Your task to perform on an android device: Look up the best rated coffee maker on Lowe's. Image 0: 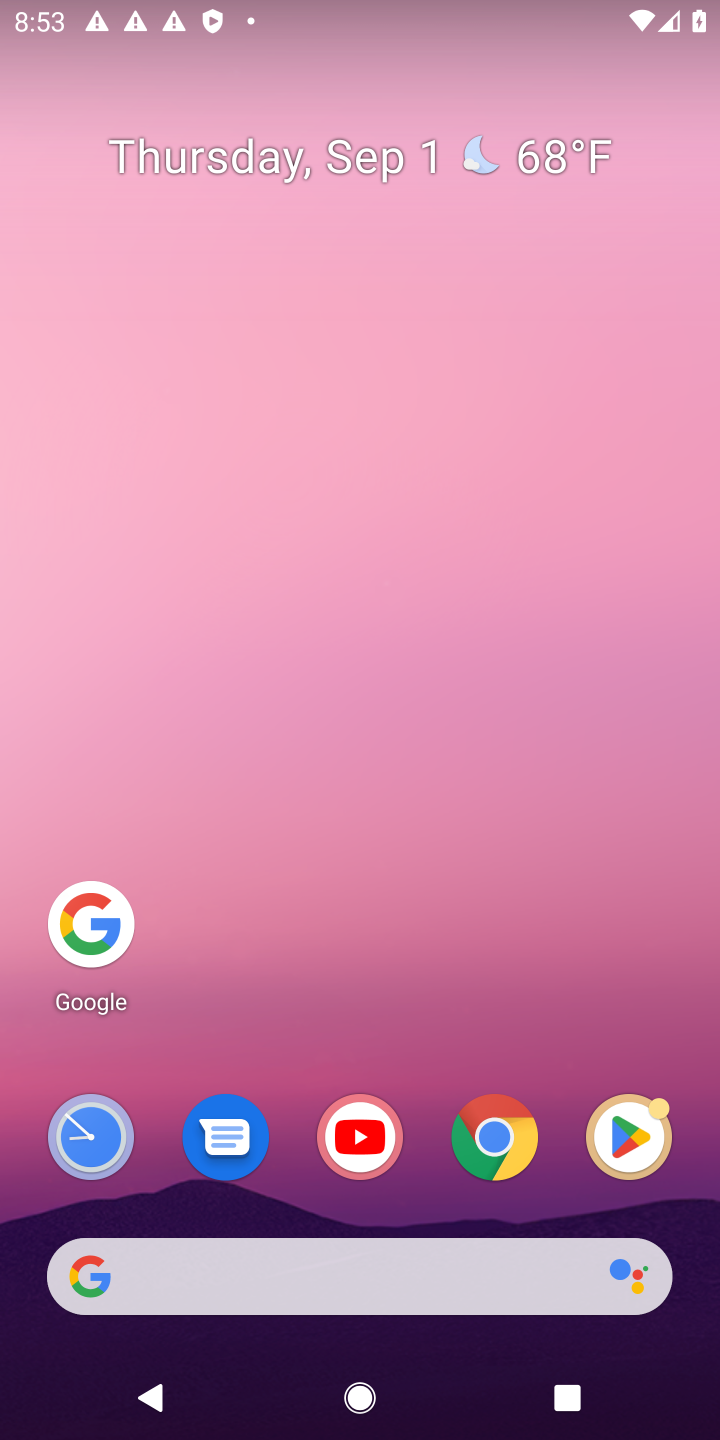
Step 0: click (107, 919)
Your task to perform on an android device: Look up the best rated coffee maker on Lowe's. Image 1: 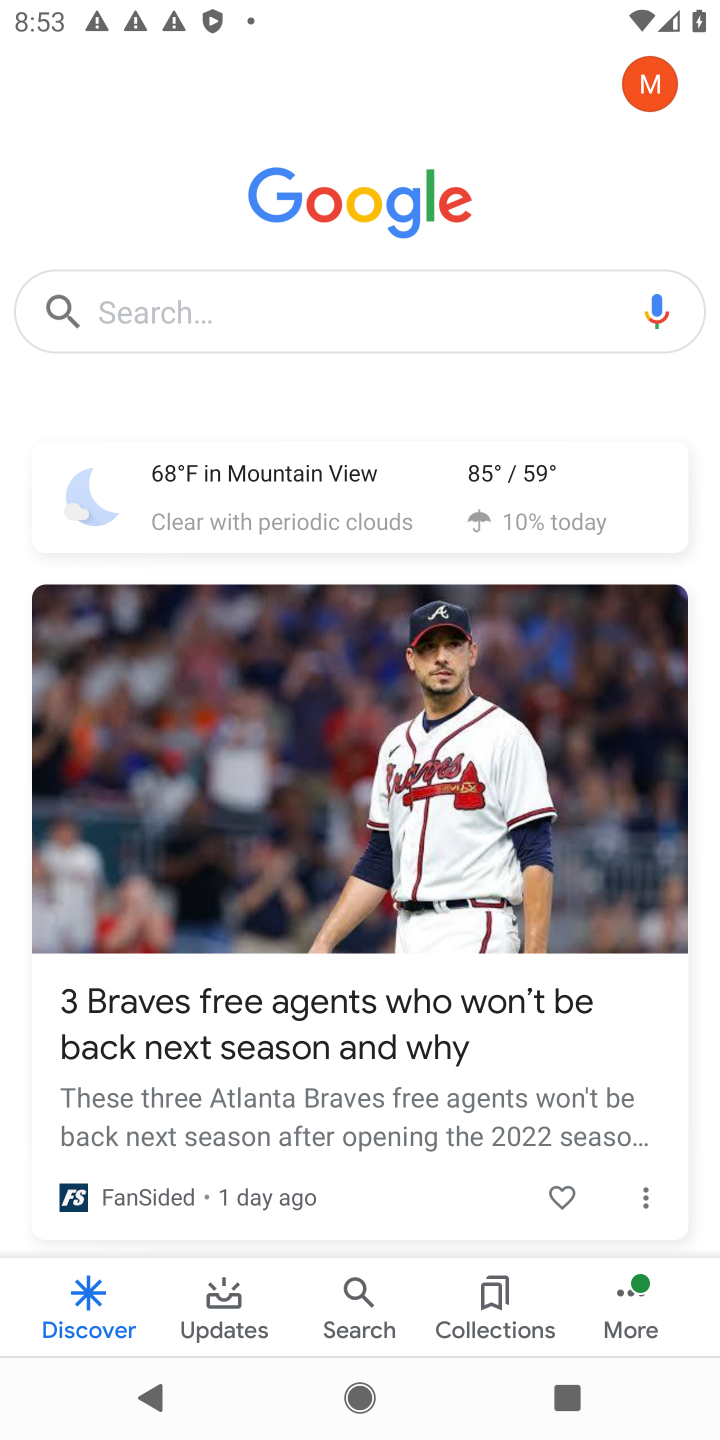
Step 1: click (321, 291)
Your task to perform on an android device: Look up the best rated coffee maker on Lowe's. Image 2: 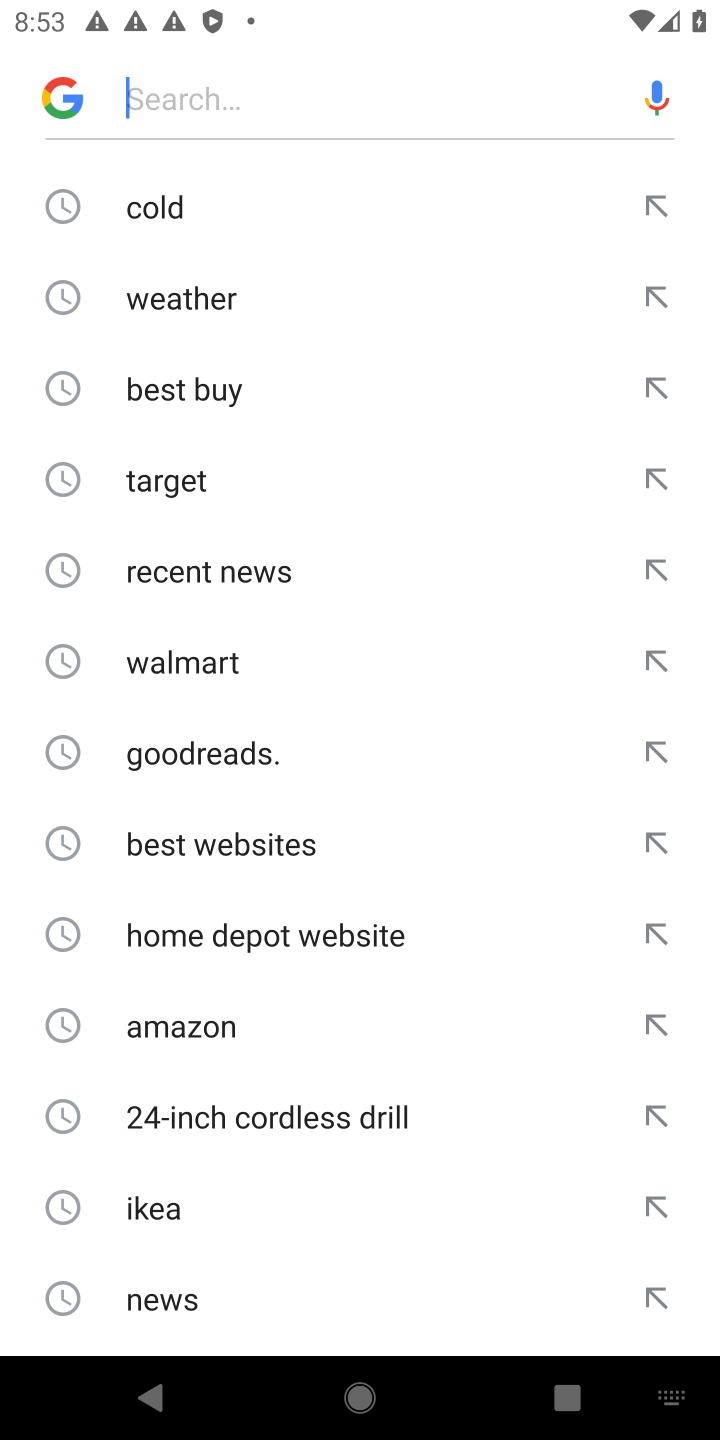
Step 2: type "lowe's"
Your task to perform on an android device: Look up the best rated coffee maker on Lowe's. Image 3: 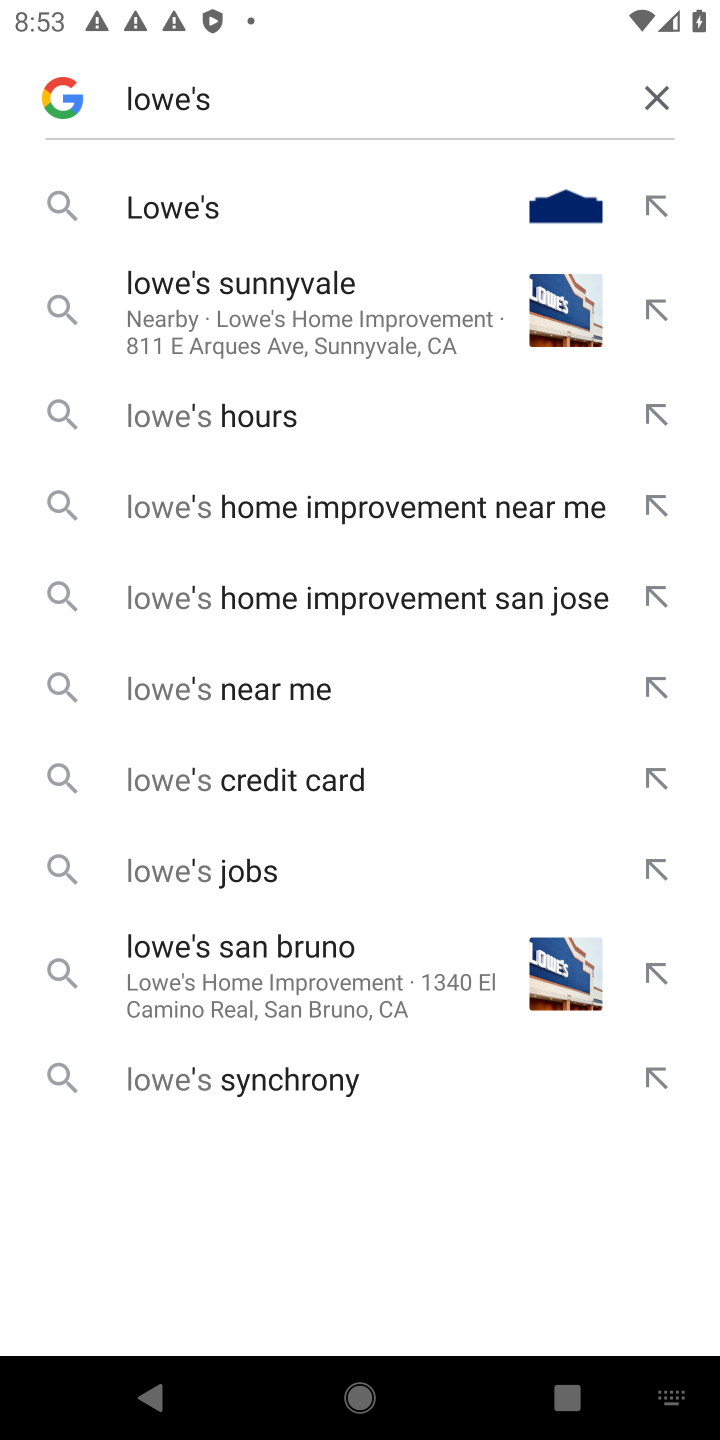
Step 3: click (204, 202)
Your task to perform on an android device: Look up the best rated coffee maker on Lowe's. Image 4: 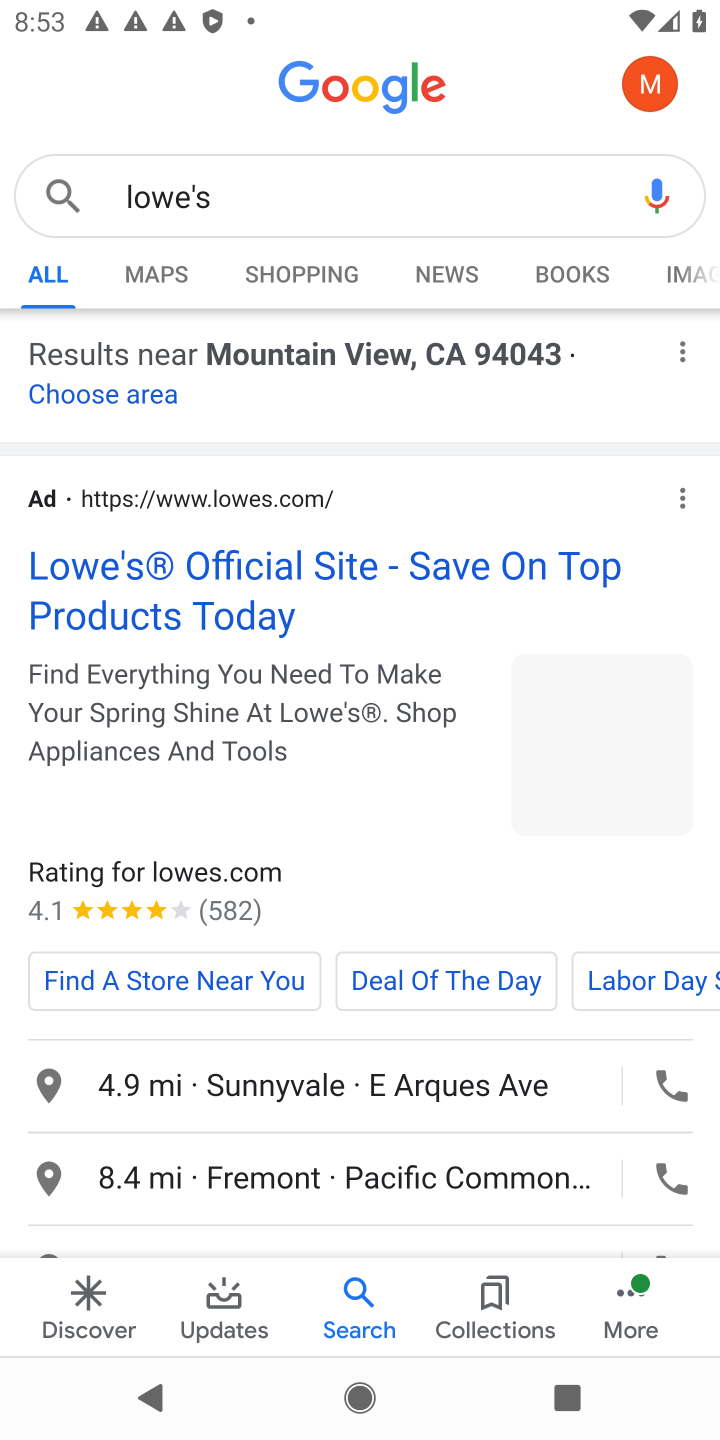
Step 4: click (278, 551)
Your task to perform on an android device: Look up the best rated coffee maker on Lowe's. Image 5: 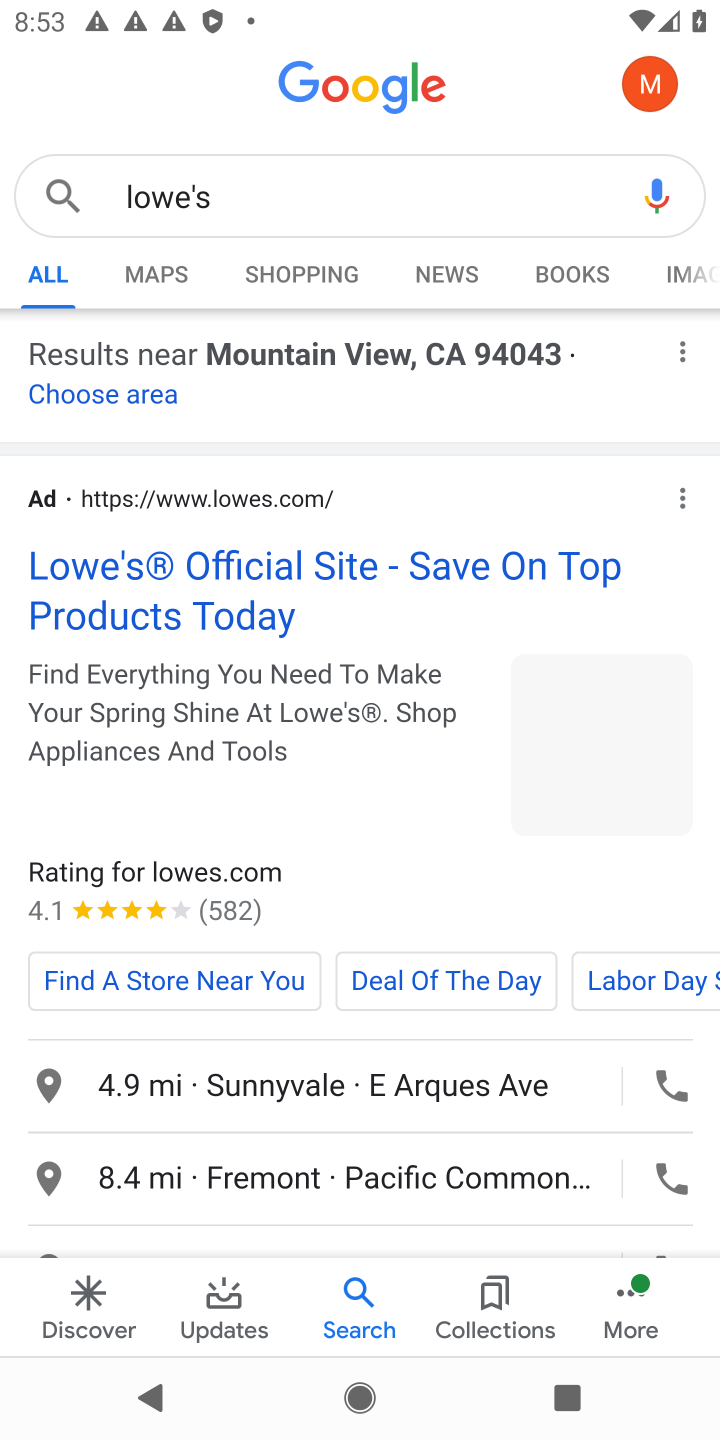
Step 5: click (239, 581)
Your task to perform on an android device: Look up the best rated coffee maker on Lowe's. Image 6: 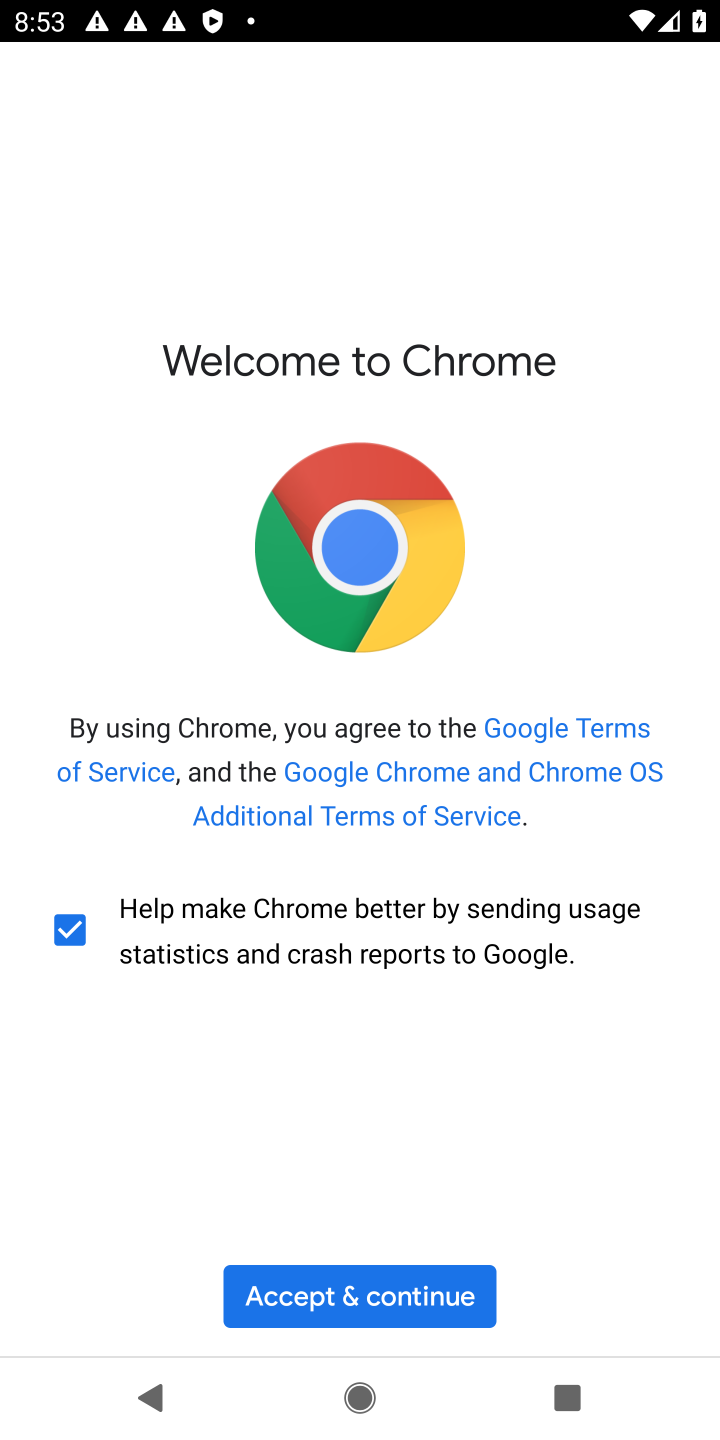
Step 6: click (331, 1307)
Your task to perform on an android device: Look up the best rated coffee maker on Lowe's. Image 7: 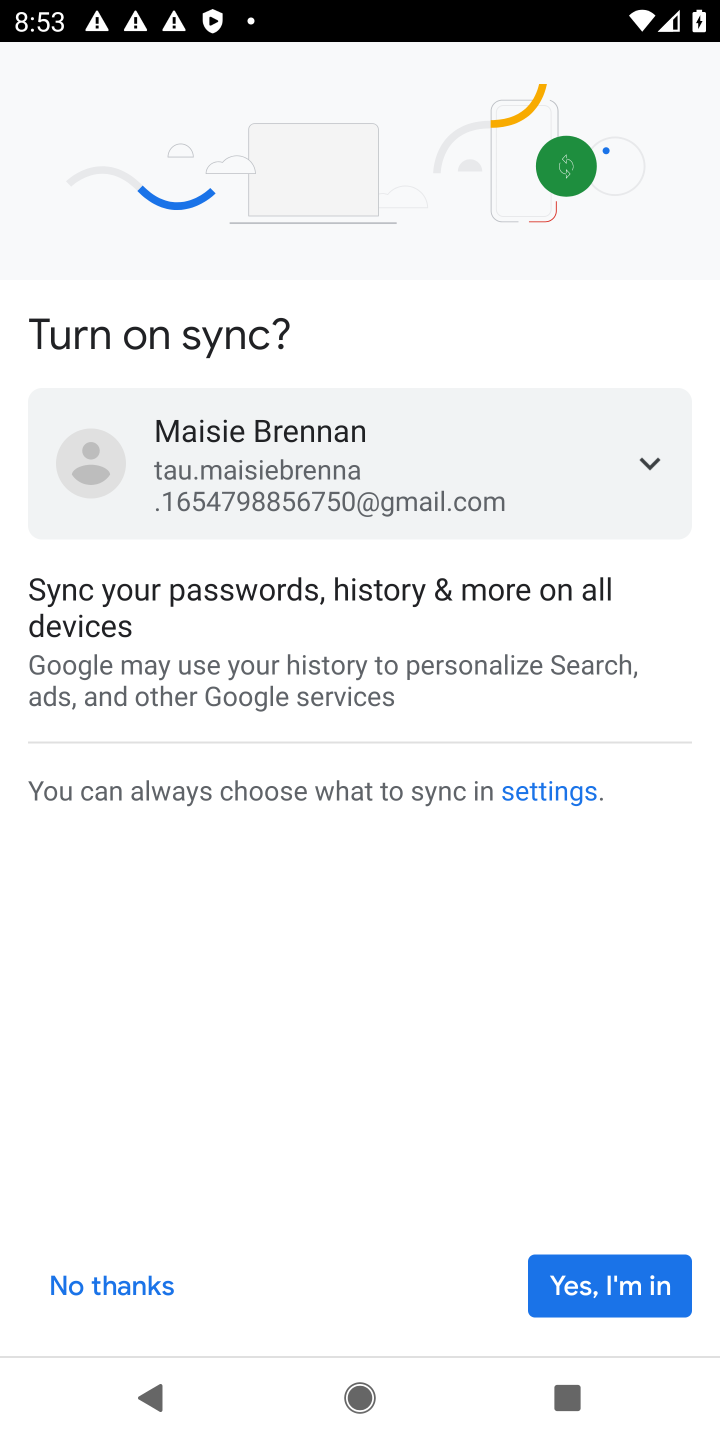
Step 7: click (601, 1282)
Your task to perform on an android device: Look up the best rated coffee maker on Lowe's. Image 8: 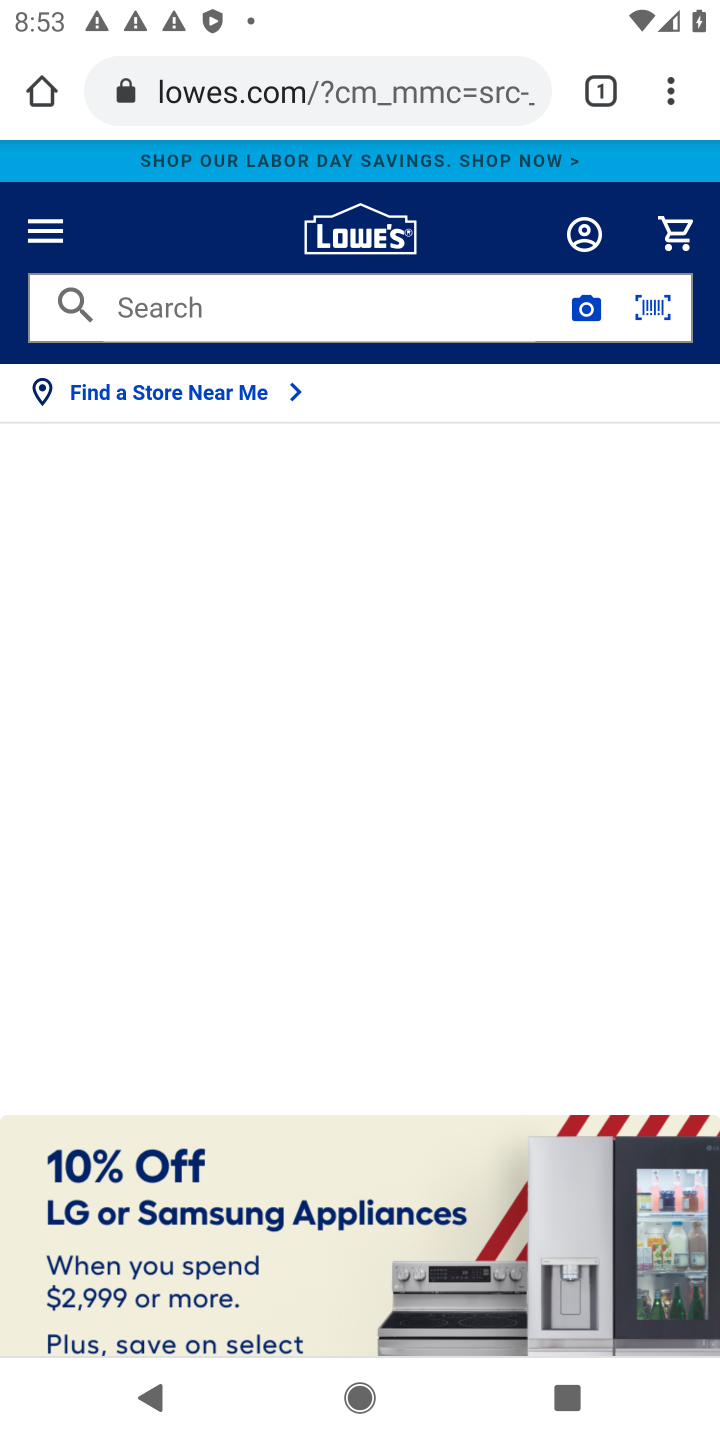
Step 8: click (215, 299)
Your task to perform on an android device: Look up the best rated coffee maker on Lowe's. Image 9: 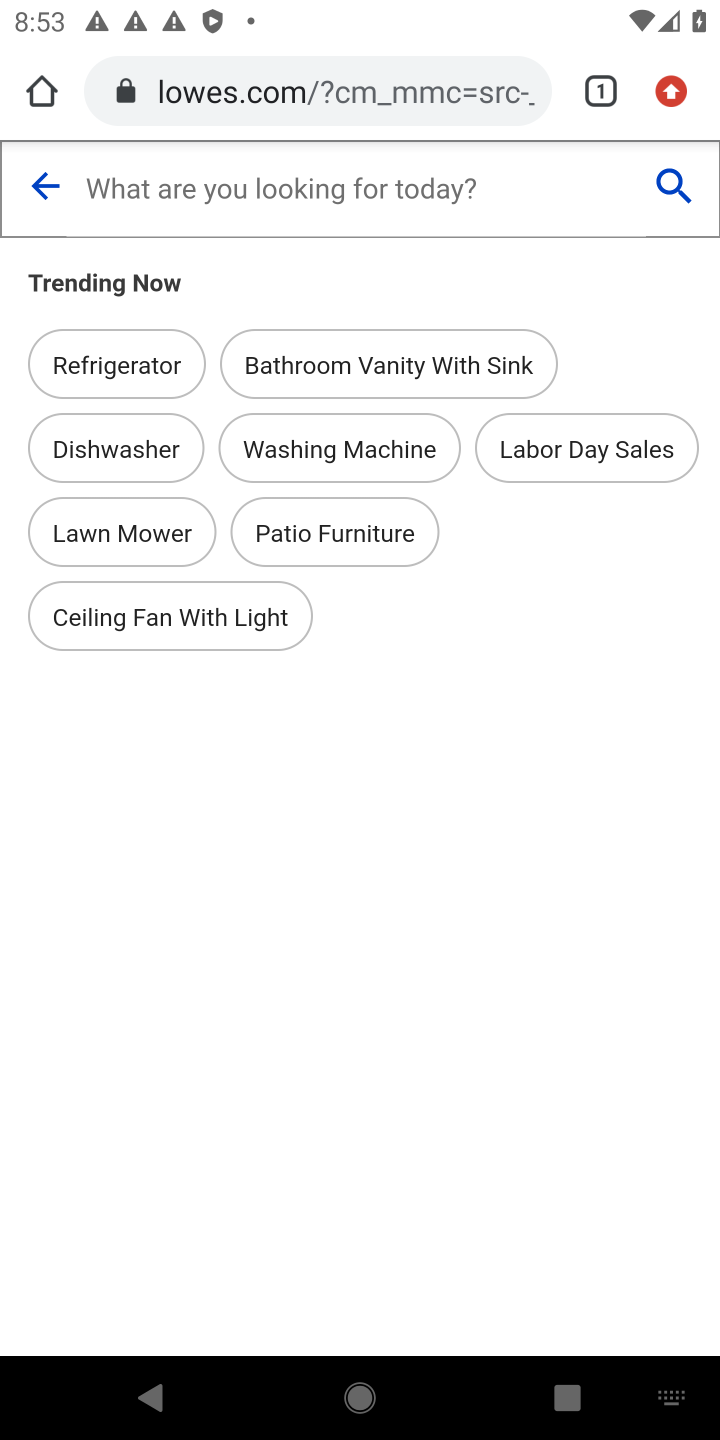
Step 9: type "best rated coffee maker"
Your task to perform on an android device: Look up the best rated coffee maker on Lowe's. Image 10: 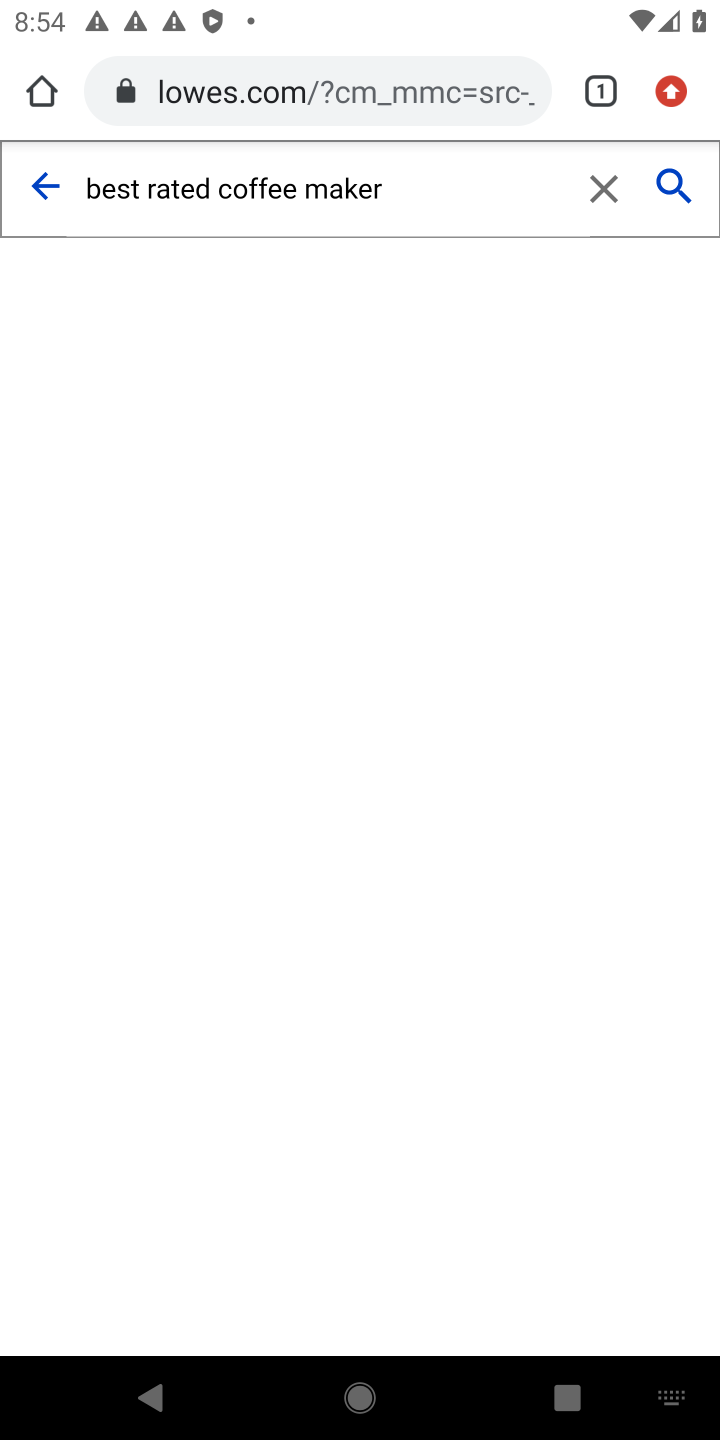
Step 10: click (672, 177)
Your task to perform on an android device: Look up the best rated coffee maker on Lowe's. Image 11: 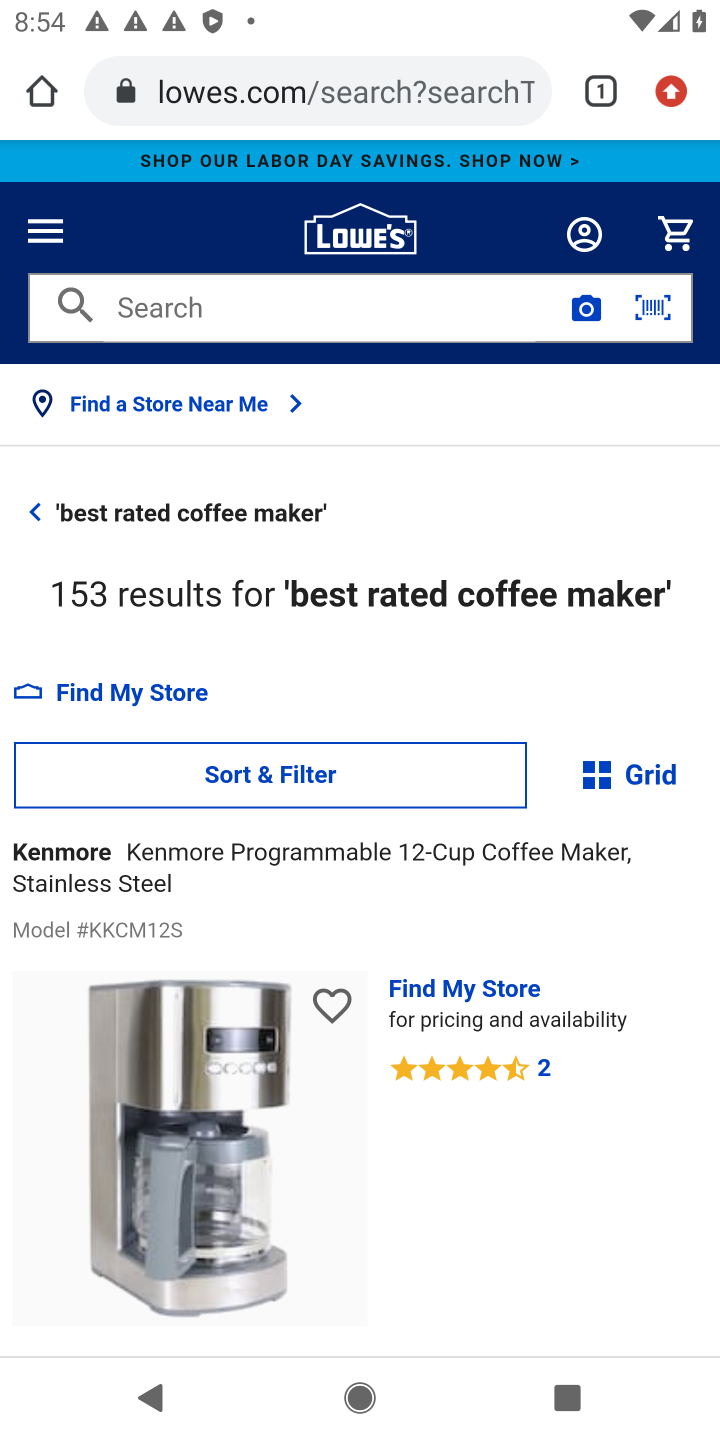
Step 11: click (450, 805)
Your task to perform on an android device: Look up the best rated coffee maker on Lowe's. Image 12: 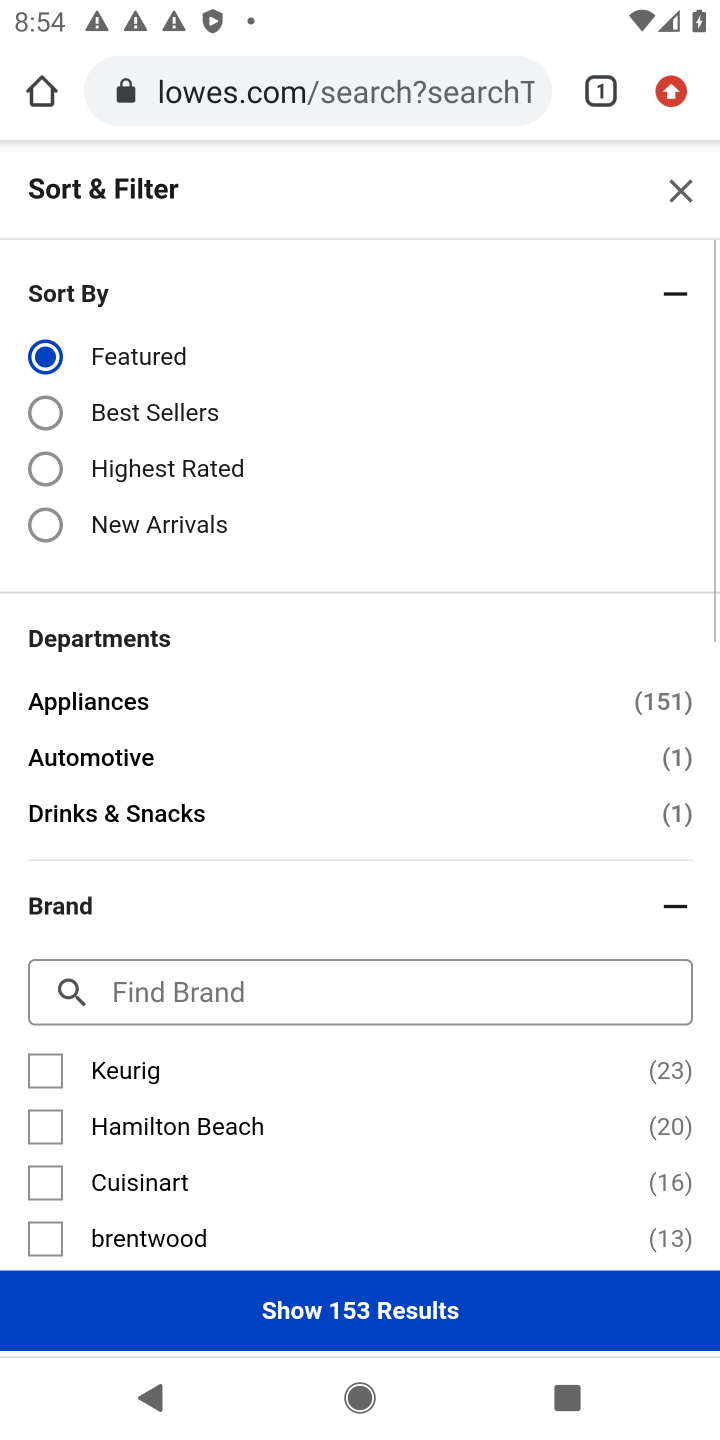
Step 12: task complete